Your task to perform on an android device: turn off notifications settings in the gmail app Image 0: 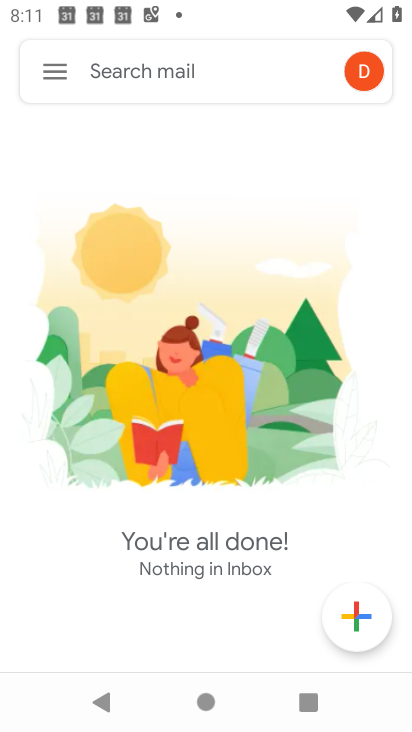
Step 0: press home button
Your task to perform on an android device: turn off notifications settings in the gmail app Image 1: 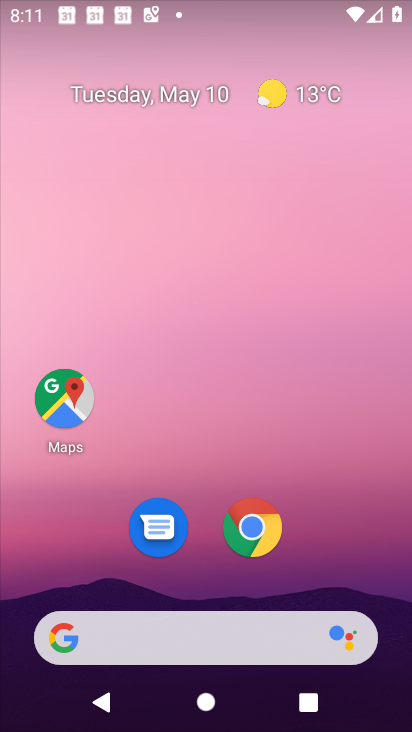
Step 1: drag from (2, 701) to (267, 188)
Your task to perform on an android device: turn off notifications settings in the gmail app Image 2: 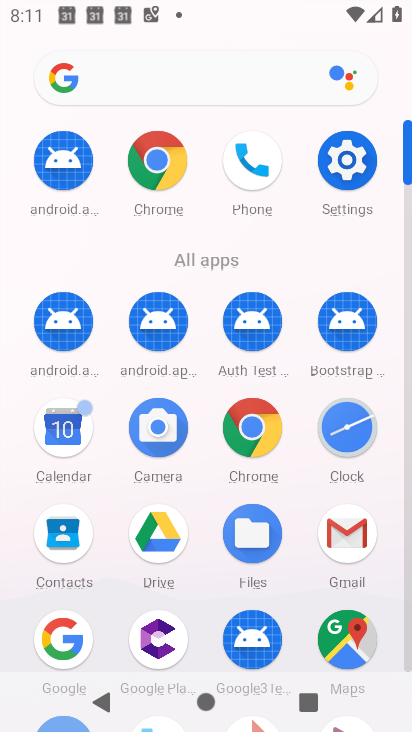
Step 2: click (351, 533)
Your task to perform on an android device: turn off notifications settings in the gmail app Image 3: 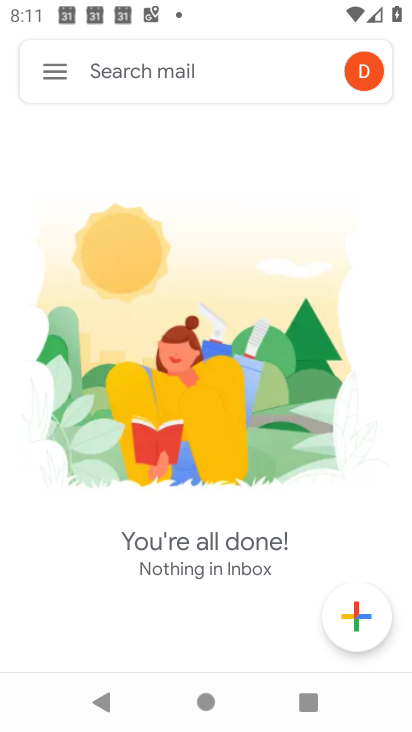
Step 3: click (44, 74)
Your task to perform on an android device: turn off notifications settings in the gmail app Image 4: 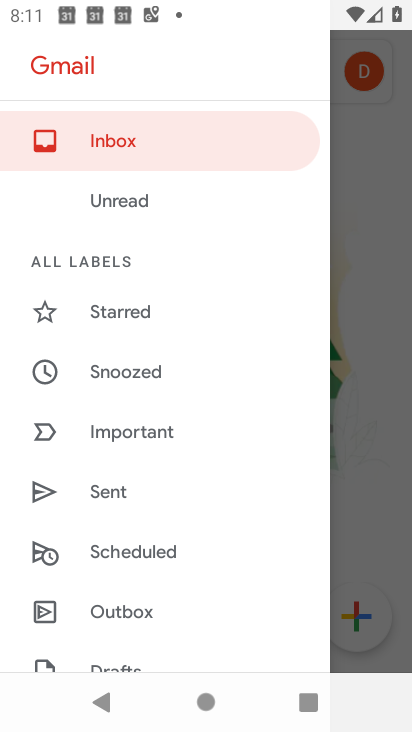
Step 4: drag from (131, 644) to (213, 177)
Your task to perform on an android device: turn off notifications settings in the gmail app Image 5: 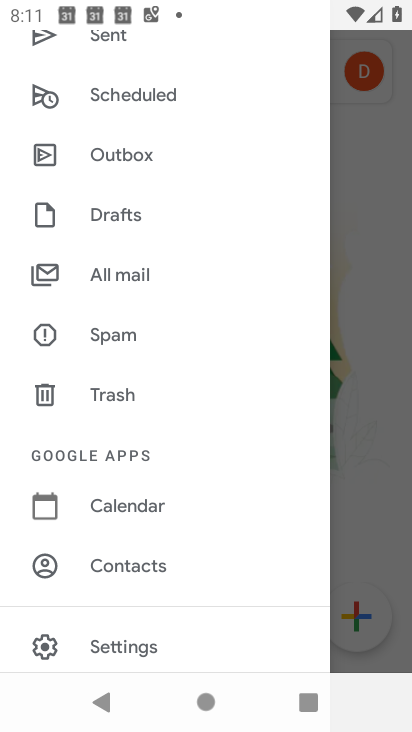
Step 5: click (97, 638)
Your task to perform on an android device: turn off notifications settings in the gmail app Image 6: 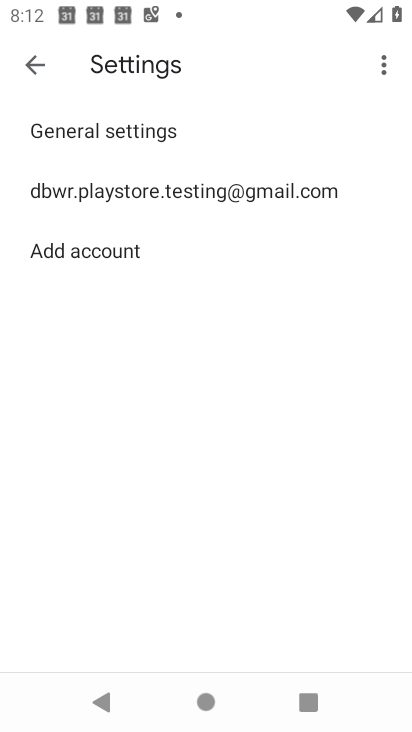
Step 6: click (150, 176)
Your task to perform on an android device: turn off notifications settings in the gmail app Image 7: 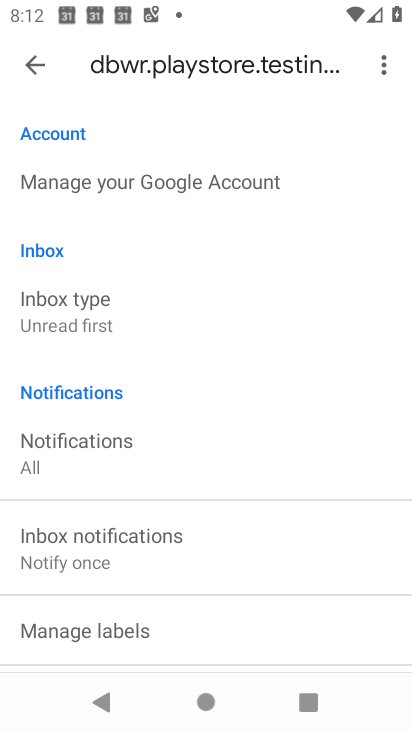
Step 7: drag from (73, 597) to (139, 237)
Your task to perform on an android device: turn off notifications settings in the gmail app Image 8: 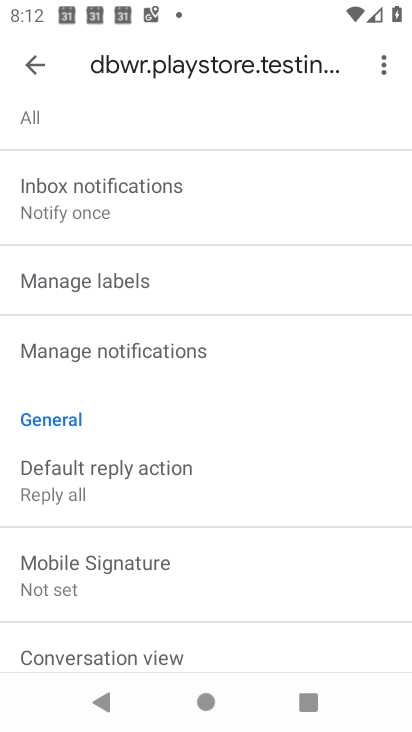
Step 8: click (89, 358)
Your task to perform on an android device: turn off notifications settings in the gmail app Image 9: 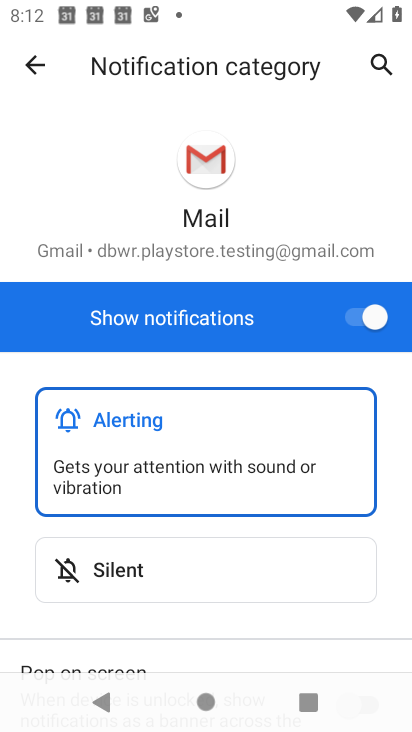
Step 9: click (364, 319)
Your task to perform on an android device: turn off notifications settings in the gmail app Image 10: 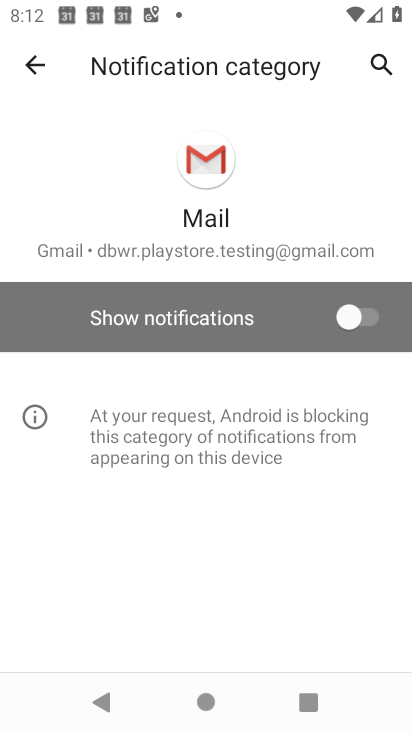
Step 10: task complete